Your task to perform on an android device: allow notifications from all sites in the chrome app Image 0: 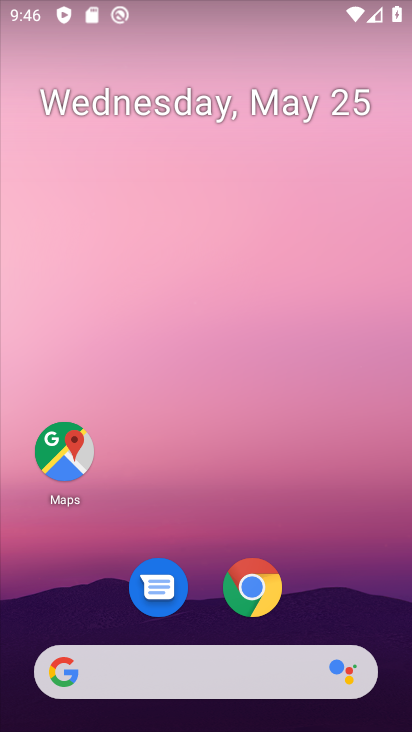
Step 0: click (264, 597)
Your task to perform on an android device: allow notifications from all sites in the chrome app Image 1: 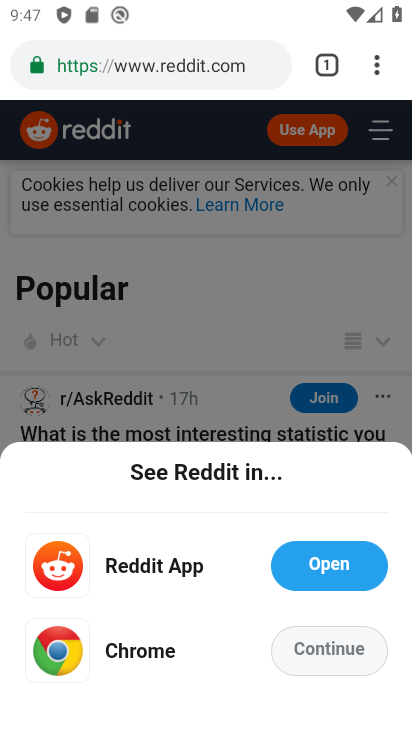
Step 1: click (375, 63)
Your task to perform on an android device: allow notifications from all sites in the chrome app Image 2: 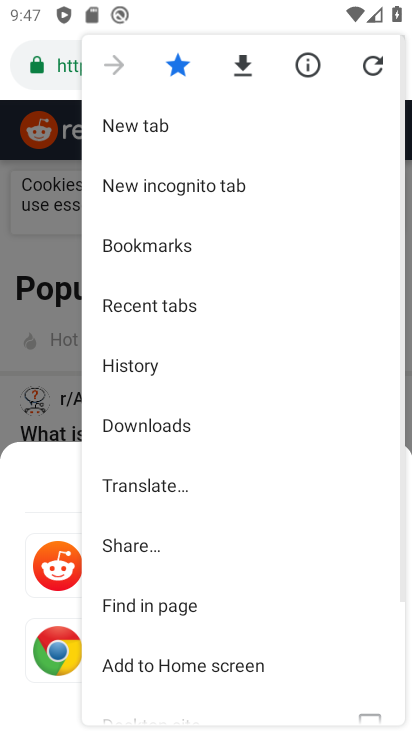
Step 2: drag from (207, 645) to (255, 207)
Your task to perform on an android device: allow notifications from all sites in the chrome app Image 3: 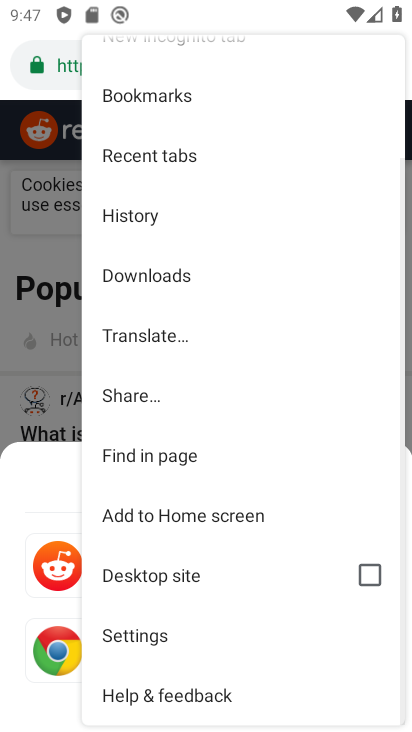
Step 3: click (149, 631)
Your task to perform on an android device: allow notifications from all sites in the chrome app Image 4: 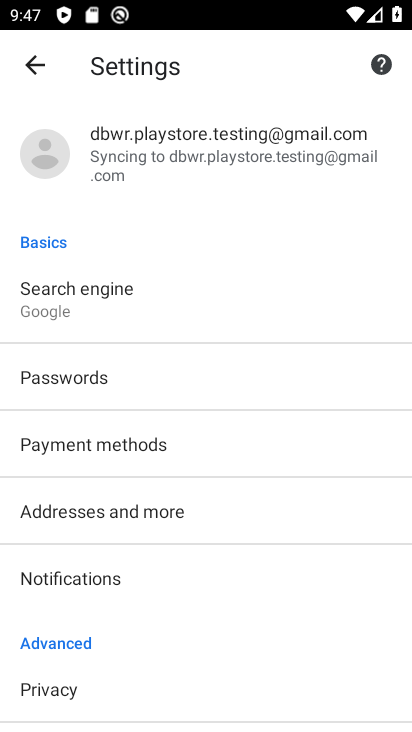
Step 4: click (108, 582)
Your task to perform on an android device: allow notifications from all sites in the chrome app Image 5: 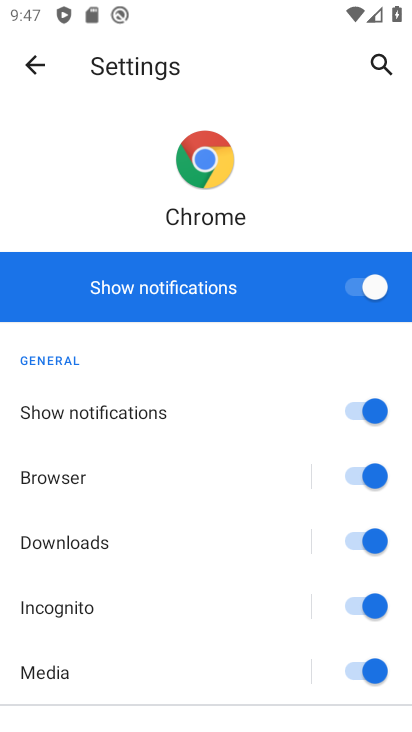
Step 5: task complete